Your task to perform on an android device: turn off data saver in the chrome app Image 0: 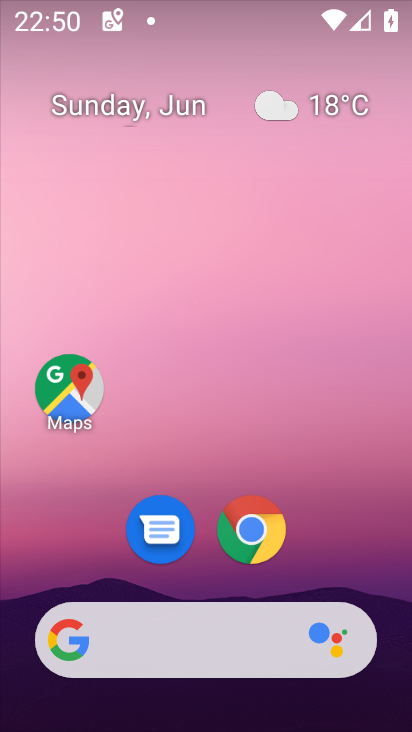
Step 0: click (279, 534)
Your task to perform on an android device: turn off data saver in the chrome app Image 1: 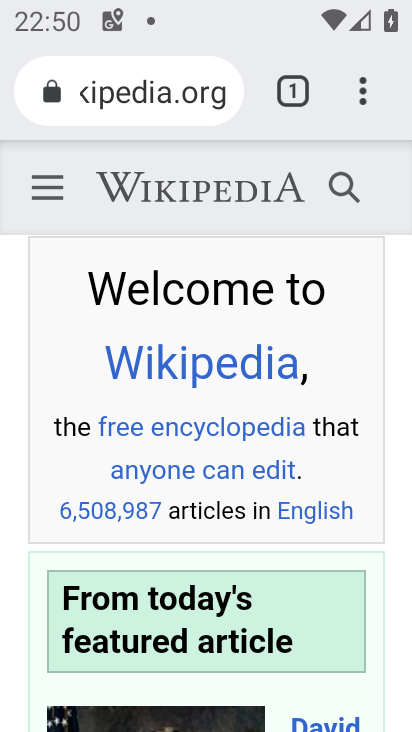
Step 1: drag from (367, 95) to (219, 569)
Your task to perform on an android device: turn off data saver in the chrome app Image 2: 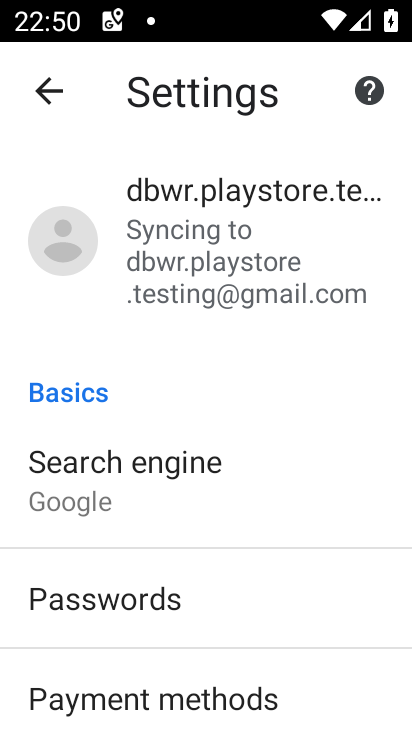
Step 2: drag from (201, 634) to (306, 227)
Your task to perform on an android device: turn off data saver in the chrome app Image 3: 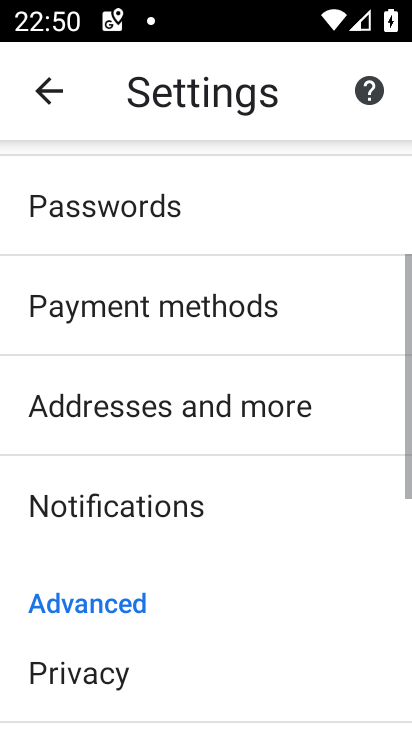
Step 3: drag from (187, 611) to (311, 244)
Your task to perform on an android device: turn off data saver in the chrome app Image 4: 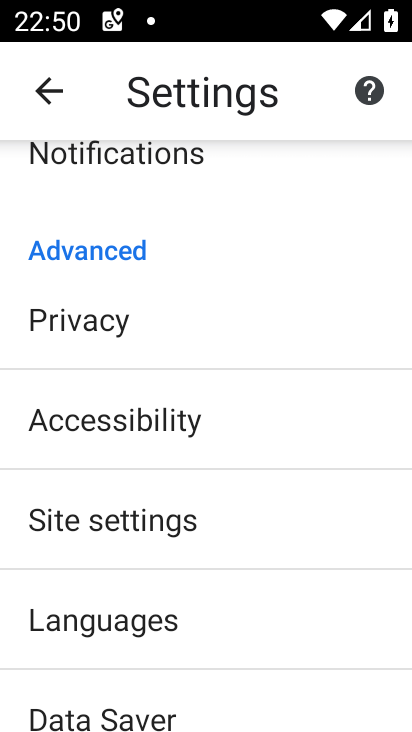
Step 4: click (169, 701)
Your task to perform on an android device: turn off data saver in the chrome app Image 5: 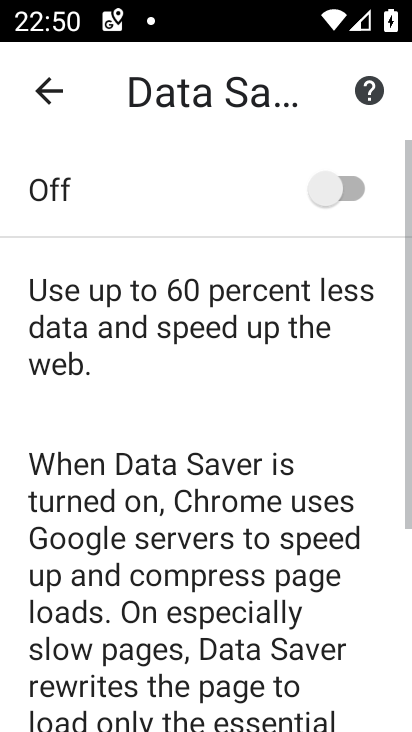
Step 5: task complete